Your task to perform on an android device: Empty the shopping cart on bestbuy. Add rayovac triple a to the cart on bestbuy Image 0: 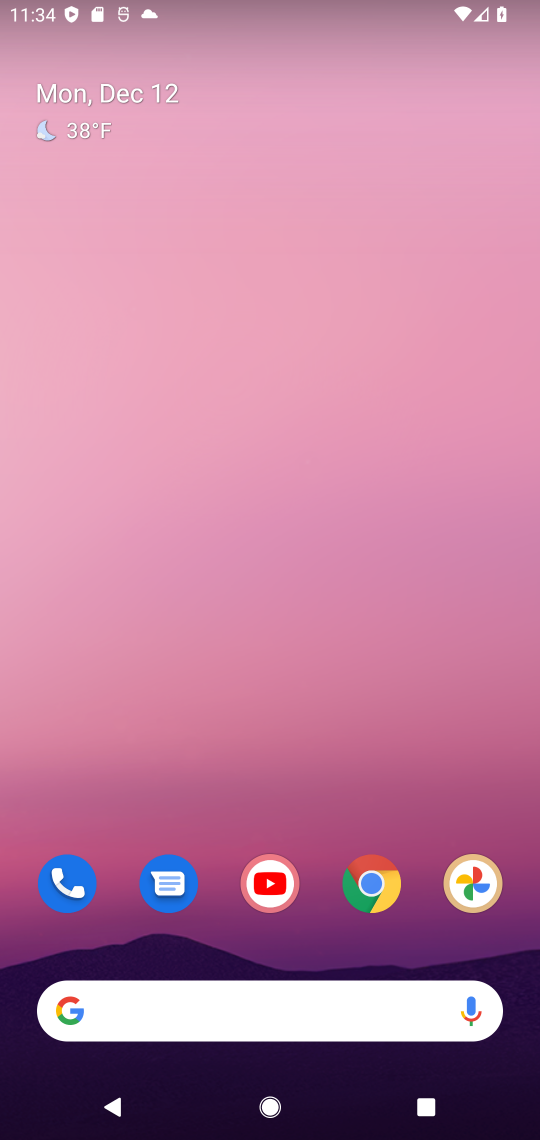
Step 0: click (214, 1005)
Your task to perform on an android device: Empty the shopping cart on bestbuy. Add rayovac triple a to the cart on bestbuy Image 1: 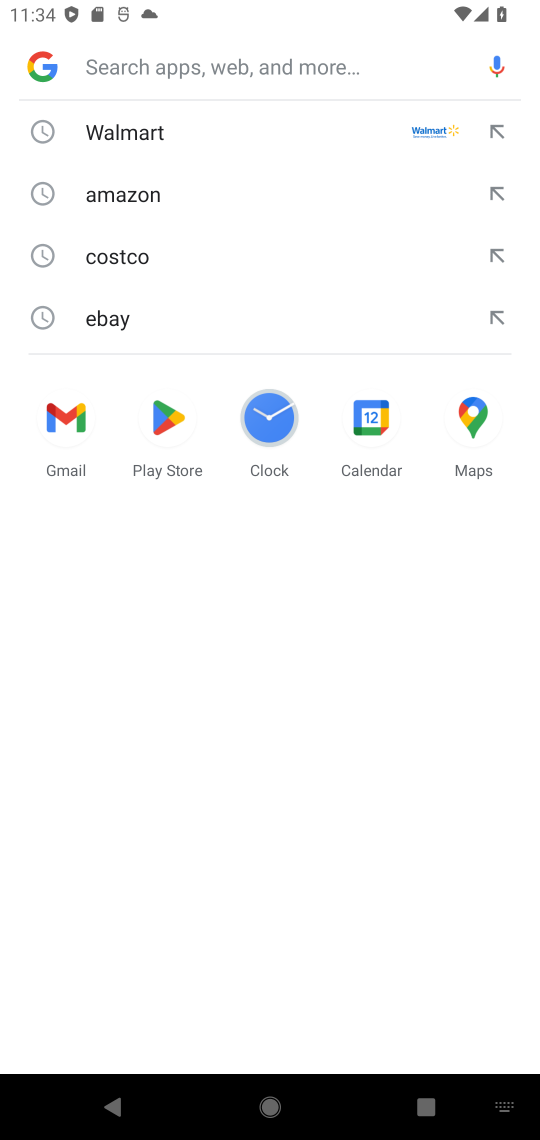
Step 1: type "bestbuy"
Your task to perform on an android device: Empty the shopping cart on bestbuy. Add rayovac triple a to the cart on bestbuy Image 2: 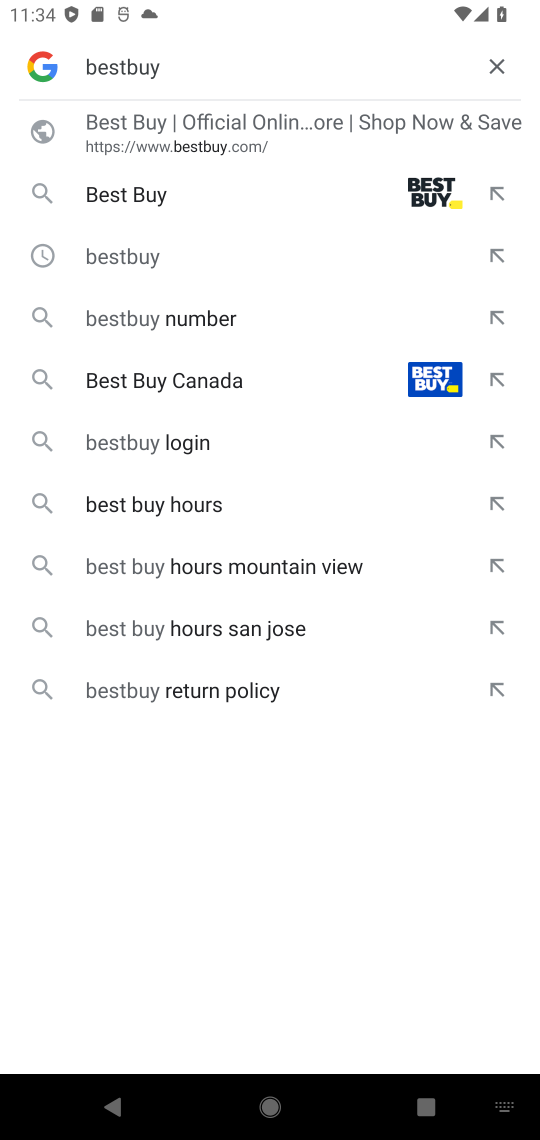
Step 2: click (183, 187)
Your task to perform on an android device: Empty the shopping cart on bestbuy. Add rayovac triple a to the cart on bestbuy Image 3: 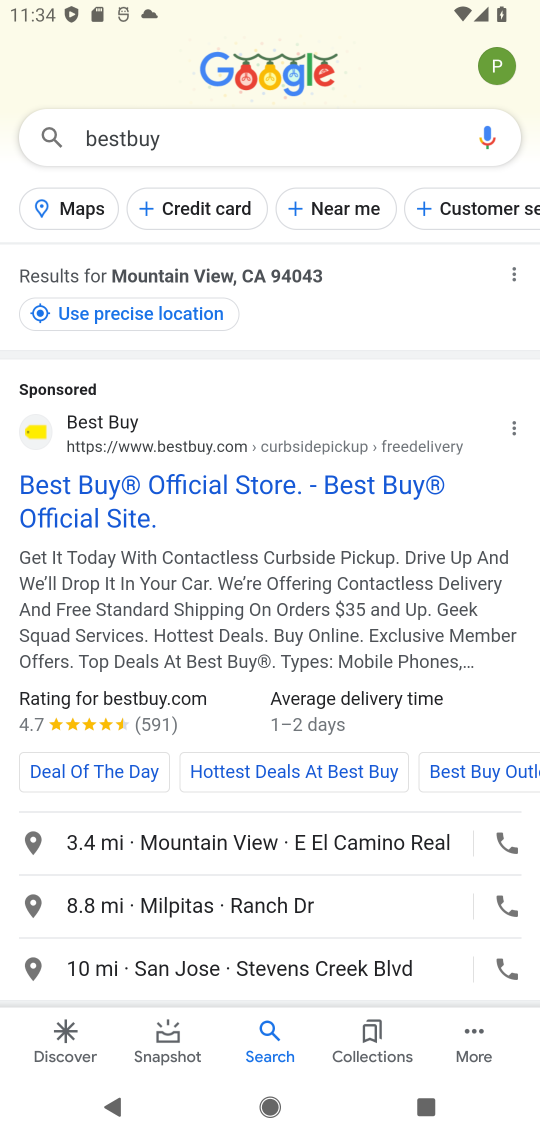
Step 3: click (136, 495)
Your task to perform on an android device: Empty the shopping cart on bestbuy. Add rayovac triple a to the cart on bestbuy Image 4: 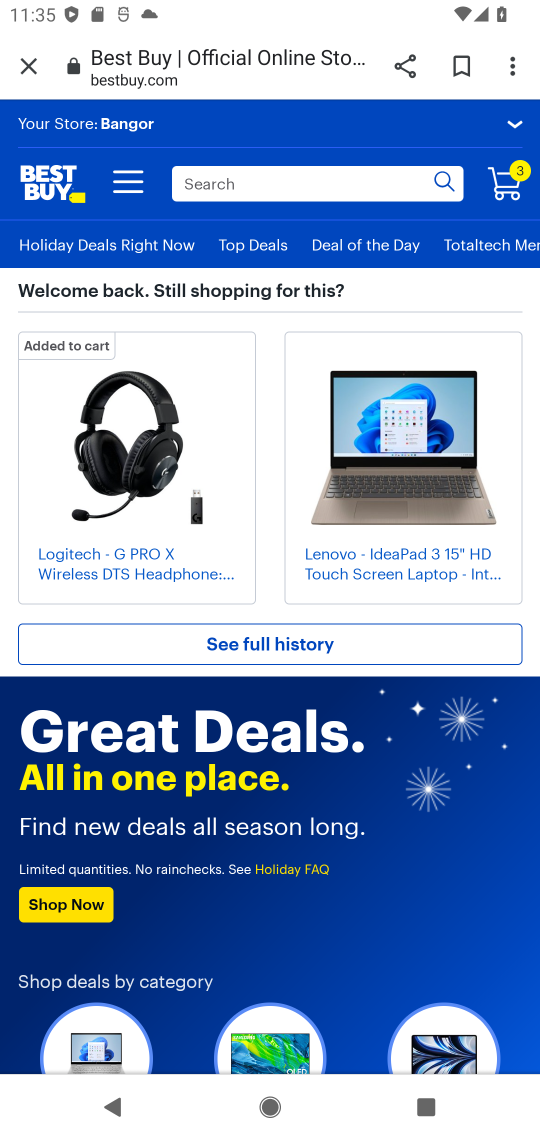
Step 4: click (513, 178)
Your task to perform on an android device: Empty the shopping cart on bestbuy. Add rayovac triple a to the cart on bestbuy Image 5: 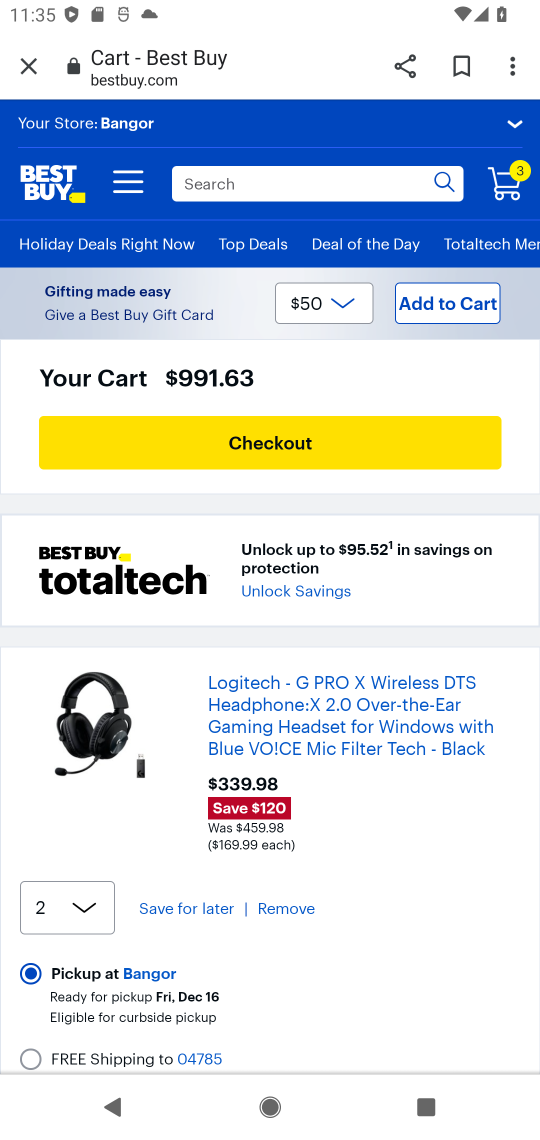
Step 5: click (274, 906)
Your task to perform on an android device: Empty the shopping cart on bestbuy. Add rayovac triple a to the cart on bestbuy Image 6: 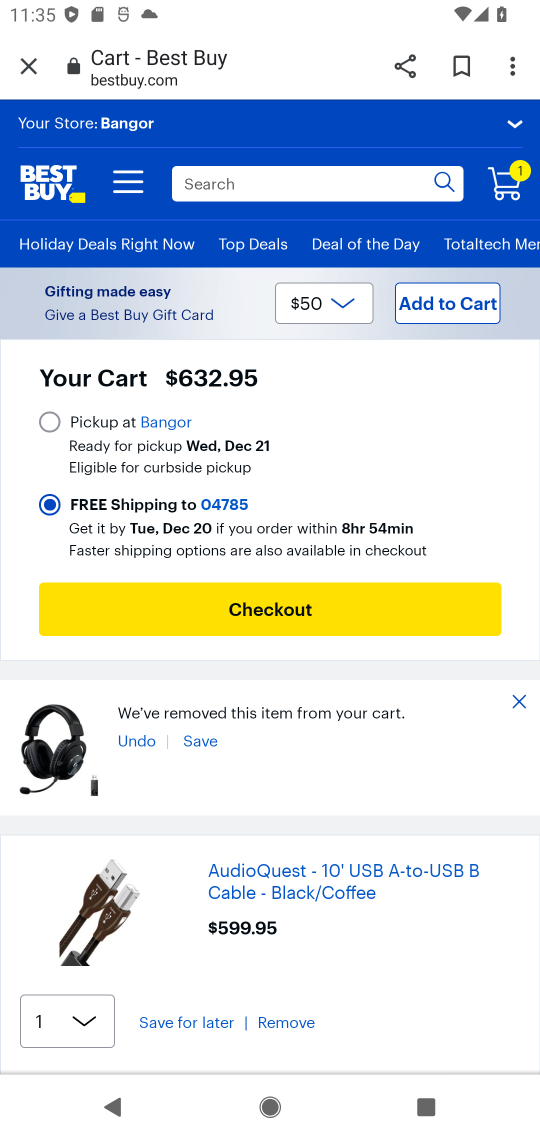
Step 6: click (268, 1023)
Your task to perform on an android device: Empty the shopping cart on bestbuy. Add rayovac triple a to the cart on bestbuy Image 7: 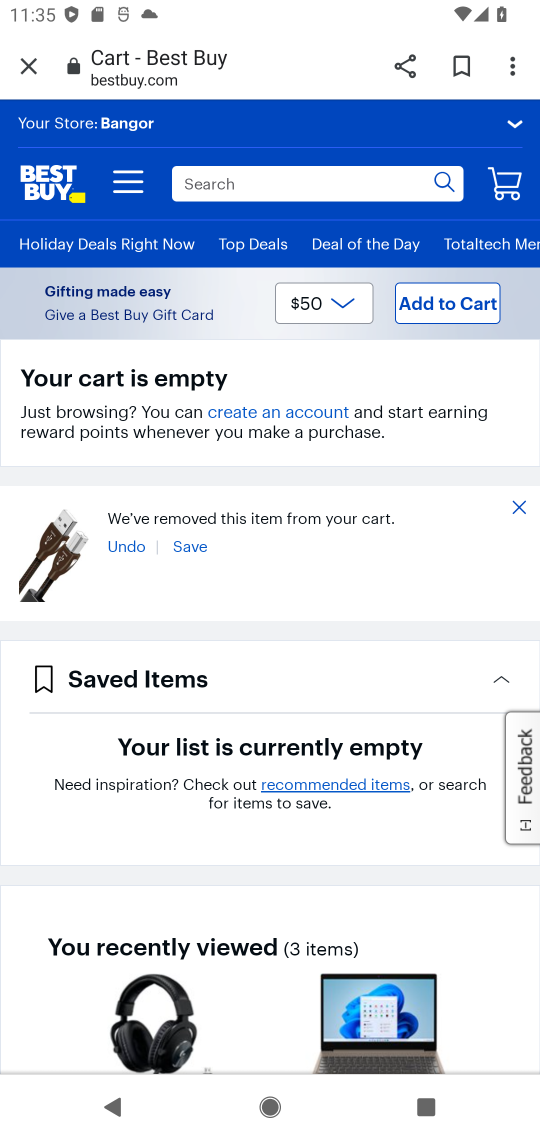
Step 7: click (204, 175)
Your task to perform on an android device: Empty the shopping cart on bestbuy. Add rayovac triple a to the cart on bestbuy Image 8: 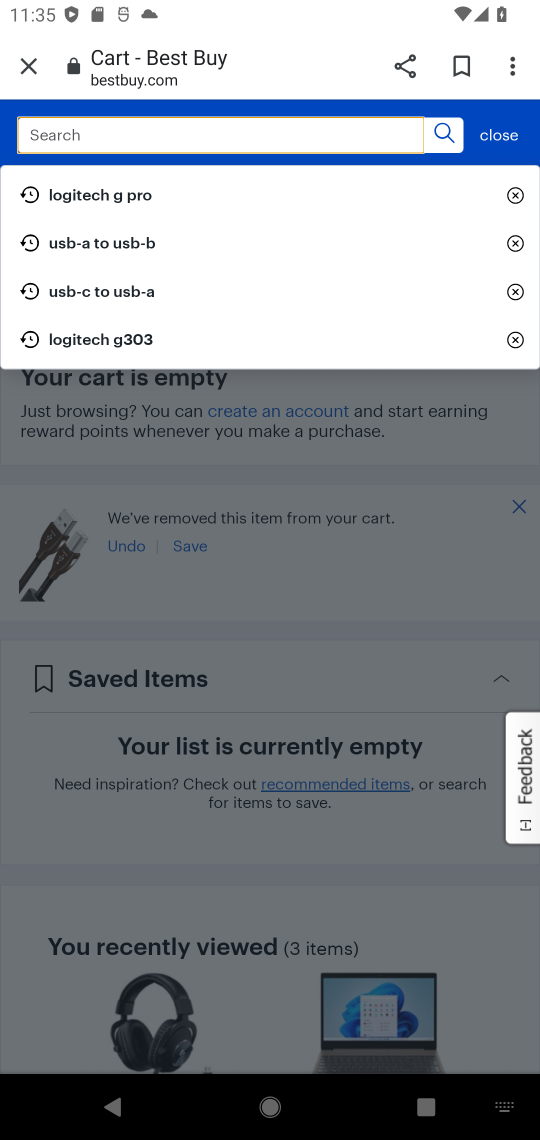
Step 8: type "rayovac triple a "
Your task to perform on an android device: Empty the shopping cart on bestbuy. Add rayovac triple a to the cart on bestbuy Image 9: 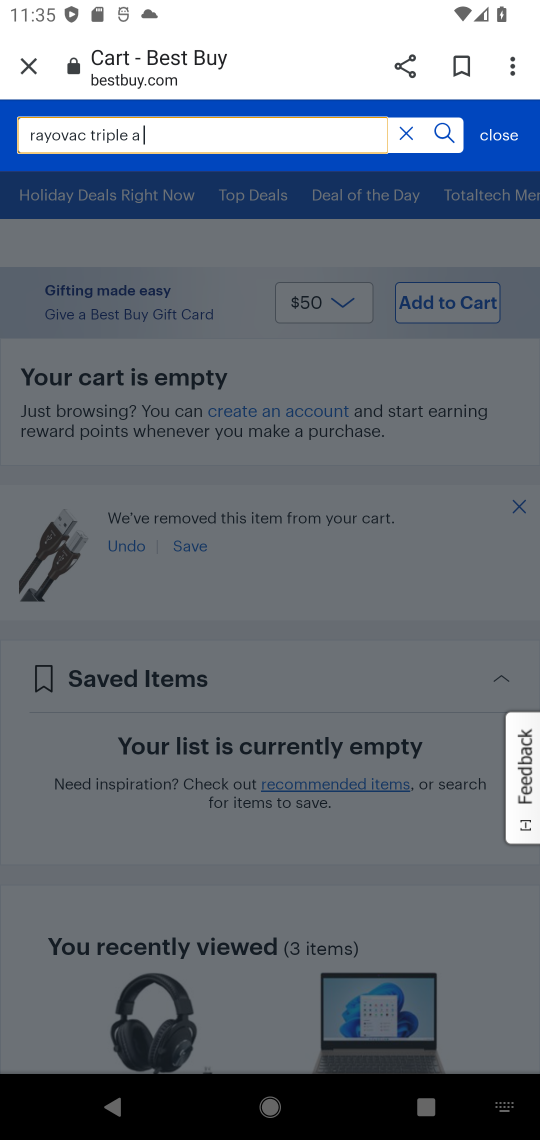
Step 9: click (455, 144)
Your task to perform on an android device: Empty the shopping cart on bestbuy. Add rayovac triple a to the cart on bestbuy Image 10: 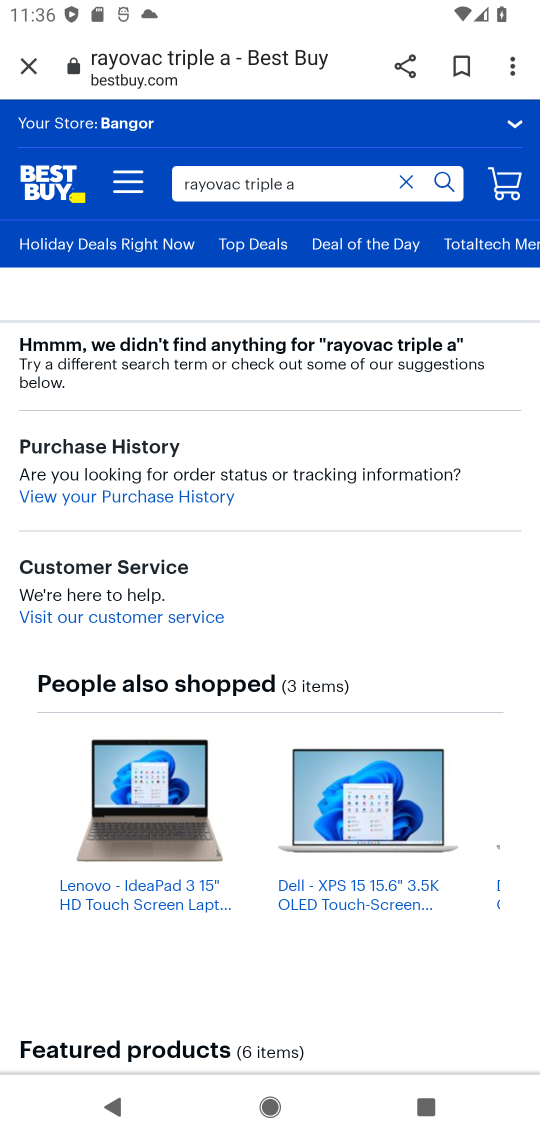
Step 10: drag from (214, 852) to (296, 651)
Your task to perform on an android device: Empty the shopping cart on bestbuy. Add rayovac triple a to the cart on bestbuy Image 11: 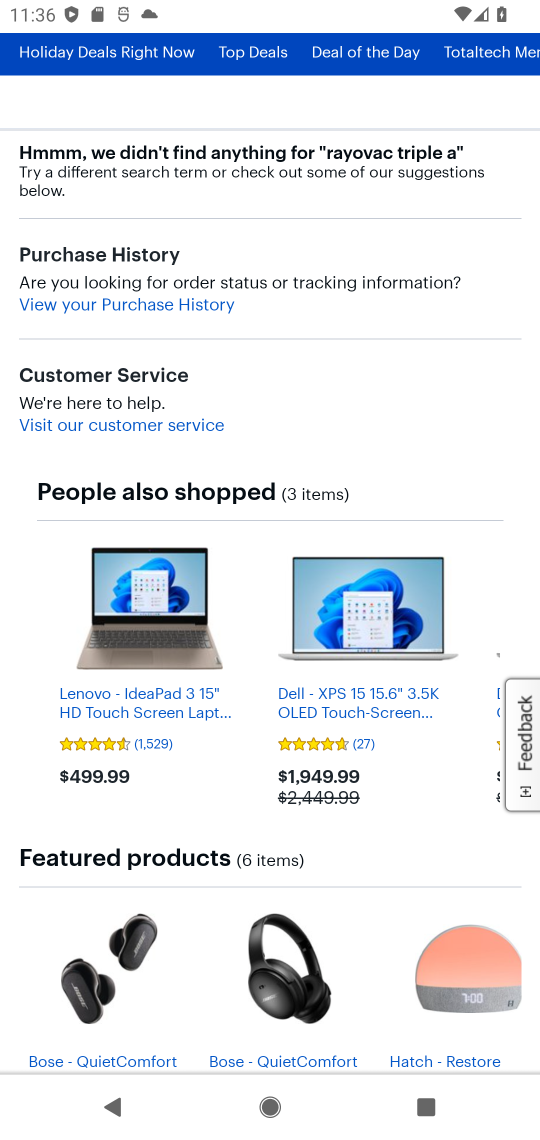
Step 11: click (125, 687)
Your task to perform on an android device: Empty the shopping cart on bestbuy. Add rayovac triple a to the cart on bestbuy Image 12: 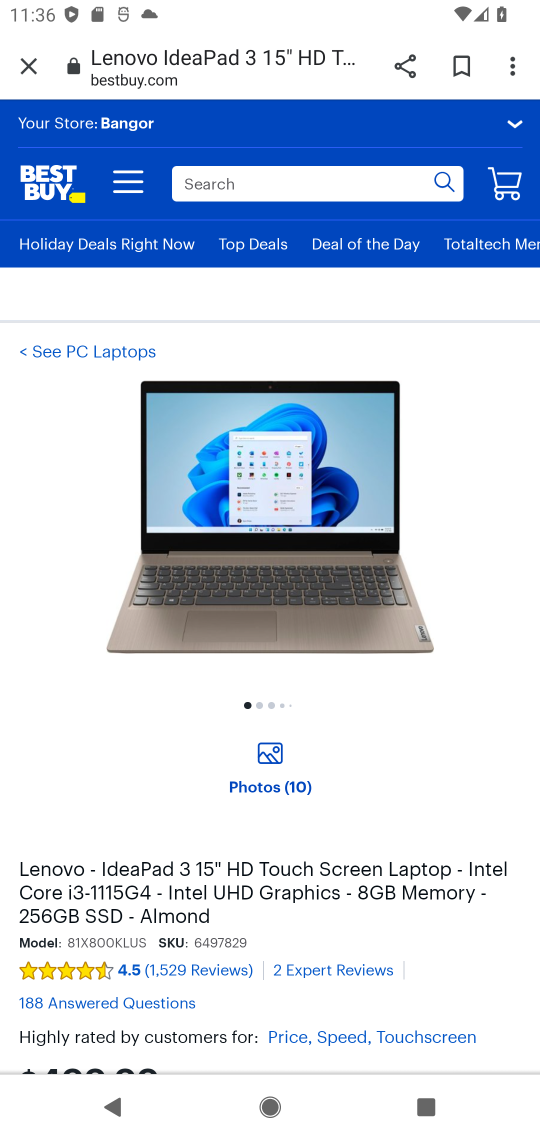
Step 12: drag from (290, 772) to (340, 530)
Your task to perform on an android device: Empty the shopping cart on bestbuy. Add rayovac triple a to the cart on bestbuy Image 13: 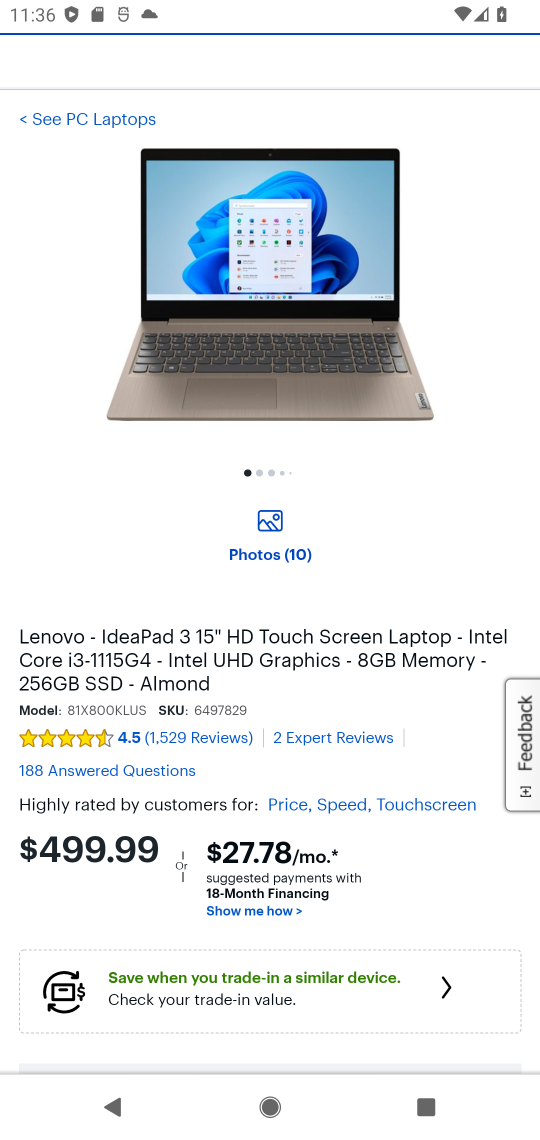
Step 13: drag from (350, 715) to (360, 645)
Your task to perform on an android device: Empty the shopping cart on bestbuy. Add rayovac triple a to the cart on bestbuy Image 14: 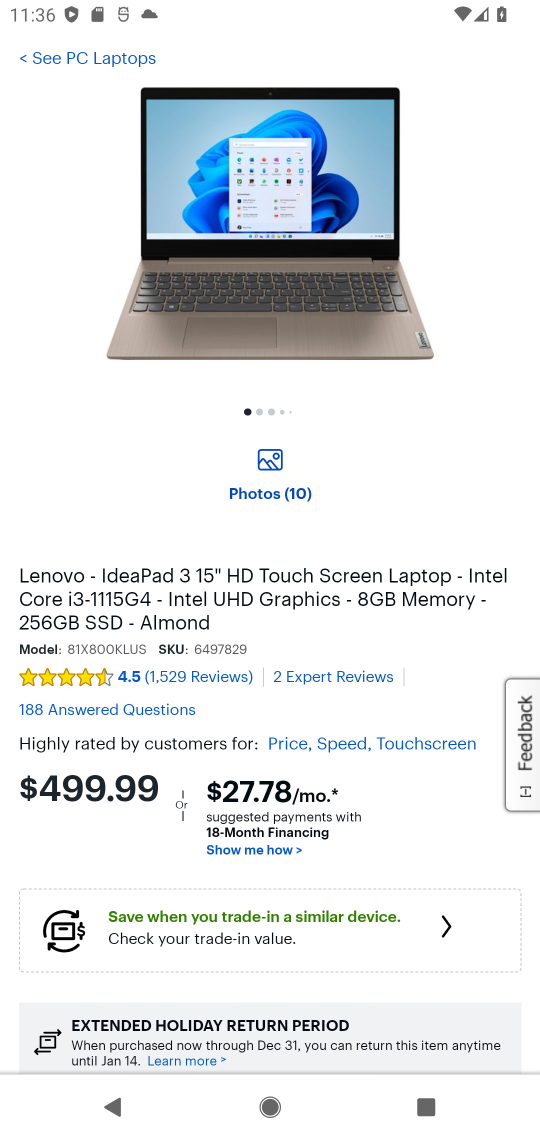
Step 14: drag from (354, 819) to (354, 690)
Your task to perform on an android device: Empty the shopping cart on bestbuy. Add rayovac triple a to the cart on bestbuy Image 15: 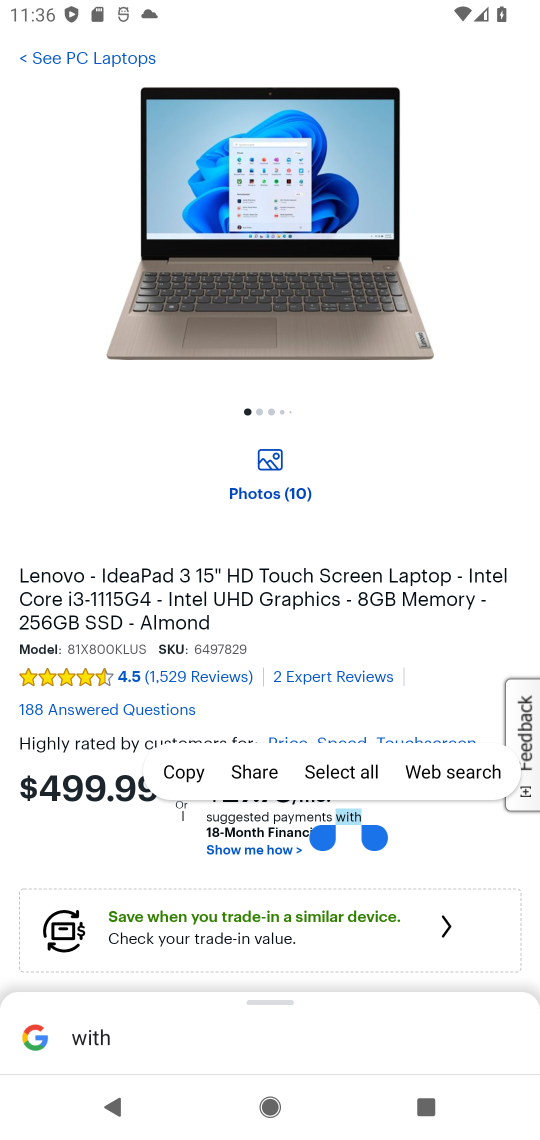
Step 15: drag from (419, 789) to (370, 485)
Your task to perform on an android device: Empty the shopping cart on bestbuy. Add rayovac triple a to the cart on bestbuy Image 16: 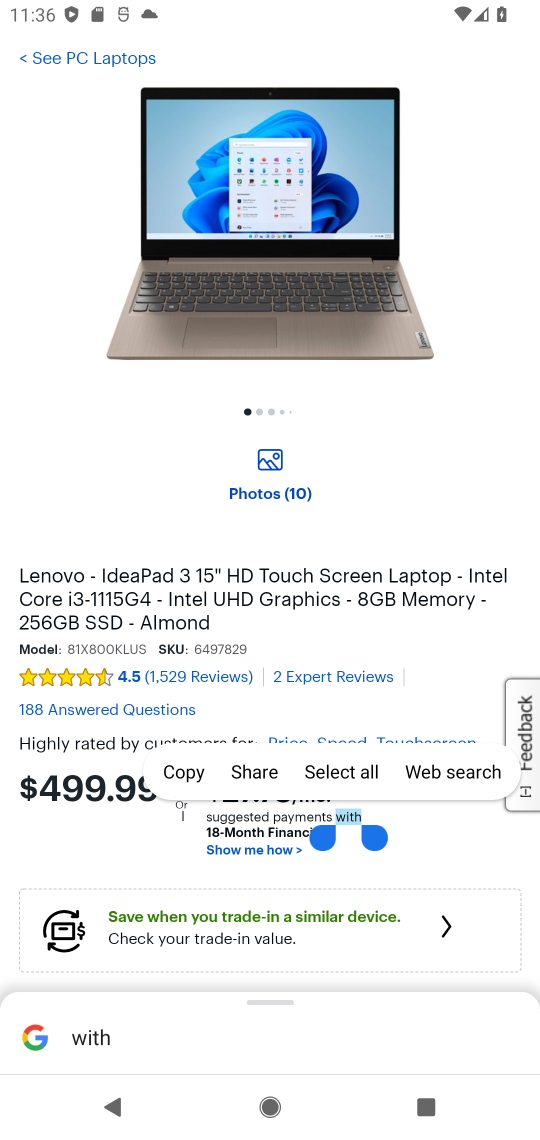
Step 16: drag from (416, 629) to (343, 247)
Your task to perform on an android device: Empty the shopping cart on bestbuy. Add rayovac triple a to the cart on bestbuy Image 17: 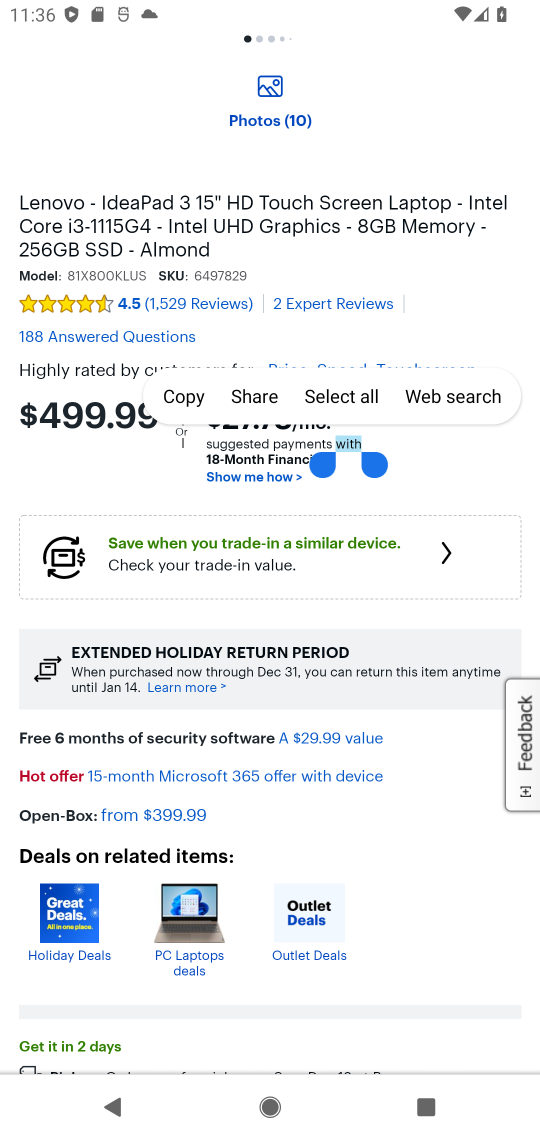
Step 17: drag from (423, 824) to (423, 604)
Your task to perform on an android device: Empty the shopping cart on bestbuy. Add rayovac triple a to the cart on bestbuy Image 18: 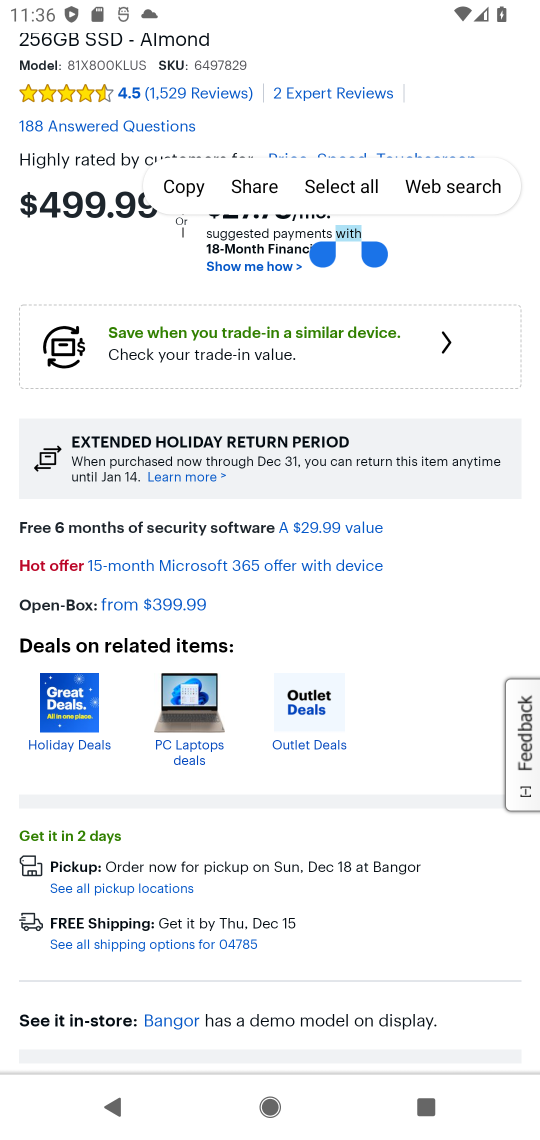
Step 18: drag from (239, 743) to (255, 613)
Your task to perform on an android device: Empty the shopping cart on bestbuy. Add rayovac triple a to the cart on bestbuy Image 19: 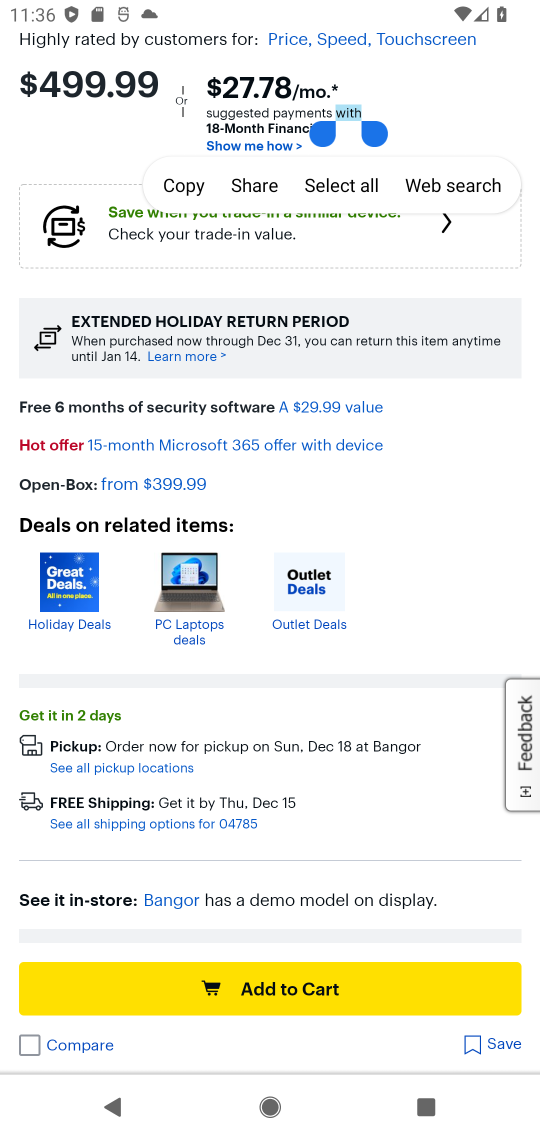
Step 19: click (253, 990)
Your task to perform on an android device: Empty the shopping cart on bestbuy. Add rayovac triple a to the cart on bestbuy Image 20: 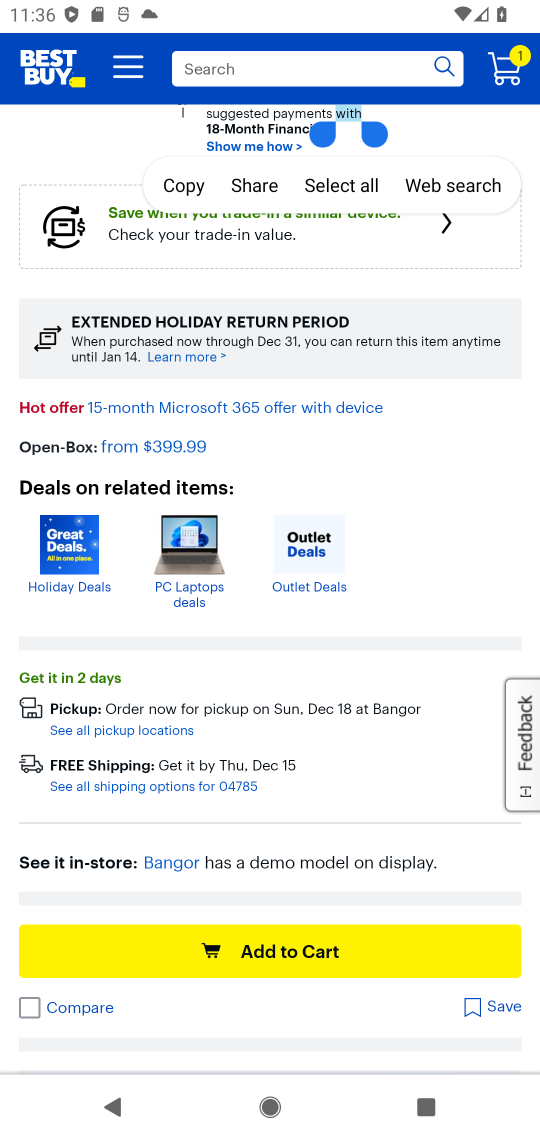
Step 20: task complete